Your task to perform on an android device: Turn off the flashlight Image 0: 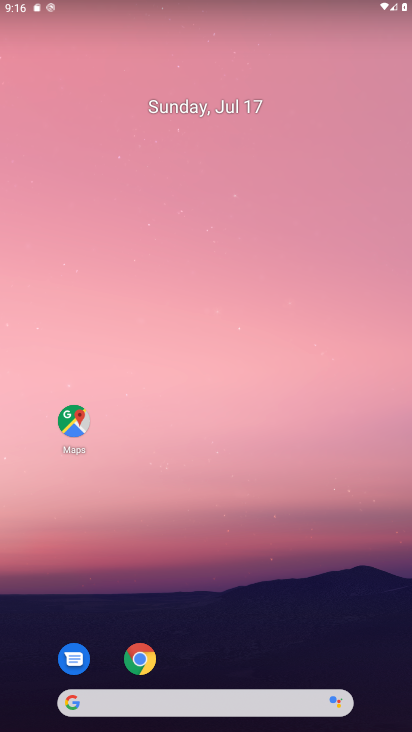
Step 0: drag from (173, 12) to (243, 432)
Your task to perform on an android device: Turn off the flashlight Image 1: 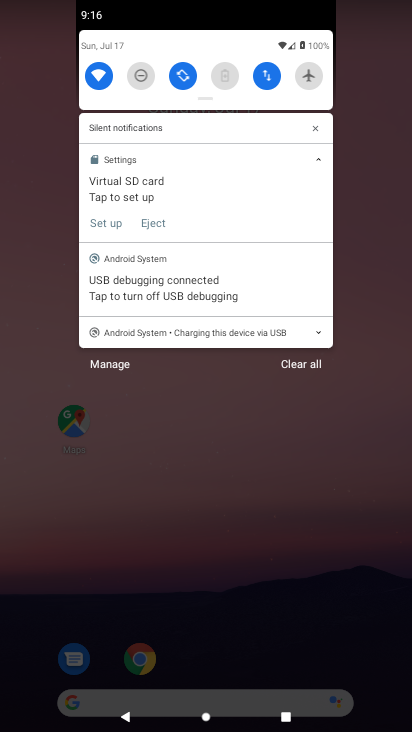
Step 1: task complete